Your task to perform on an android device: Clear all items from cart on bestbuy. Search for "alienware area 51" on bestbuy, select the first entry, and add it to the cart. Image 0: 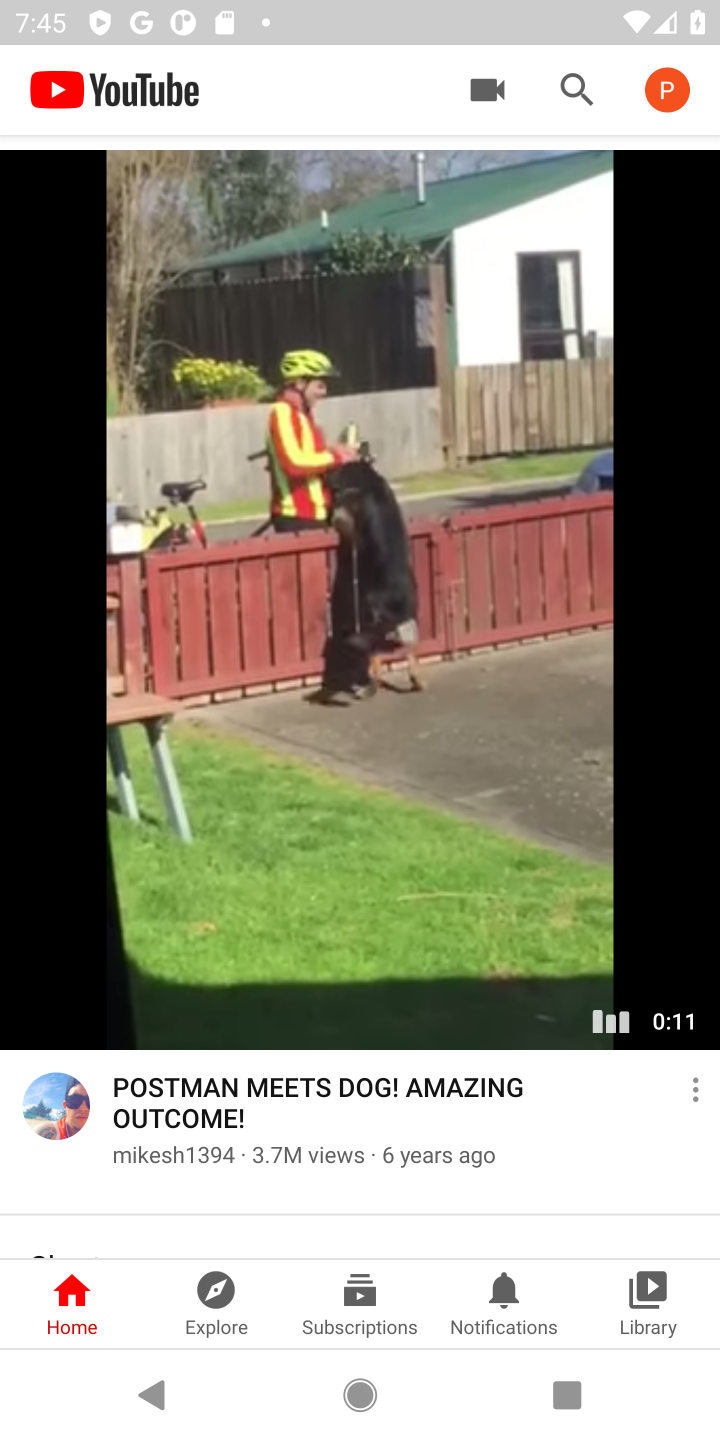
Step 0: press home button
Your task to perform on an android device: Clear all items from cart on bestbuy. Search for "alienware area 51" on bestbuy, select the first entry, and add it to the cart. Image 1: 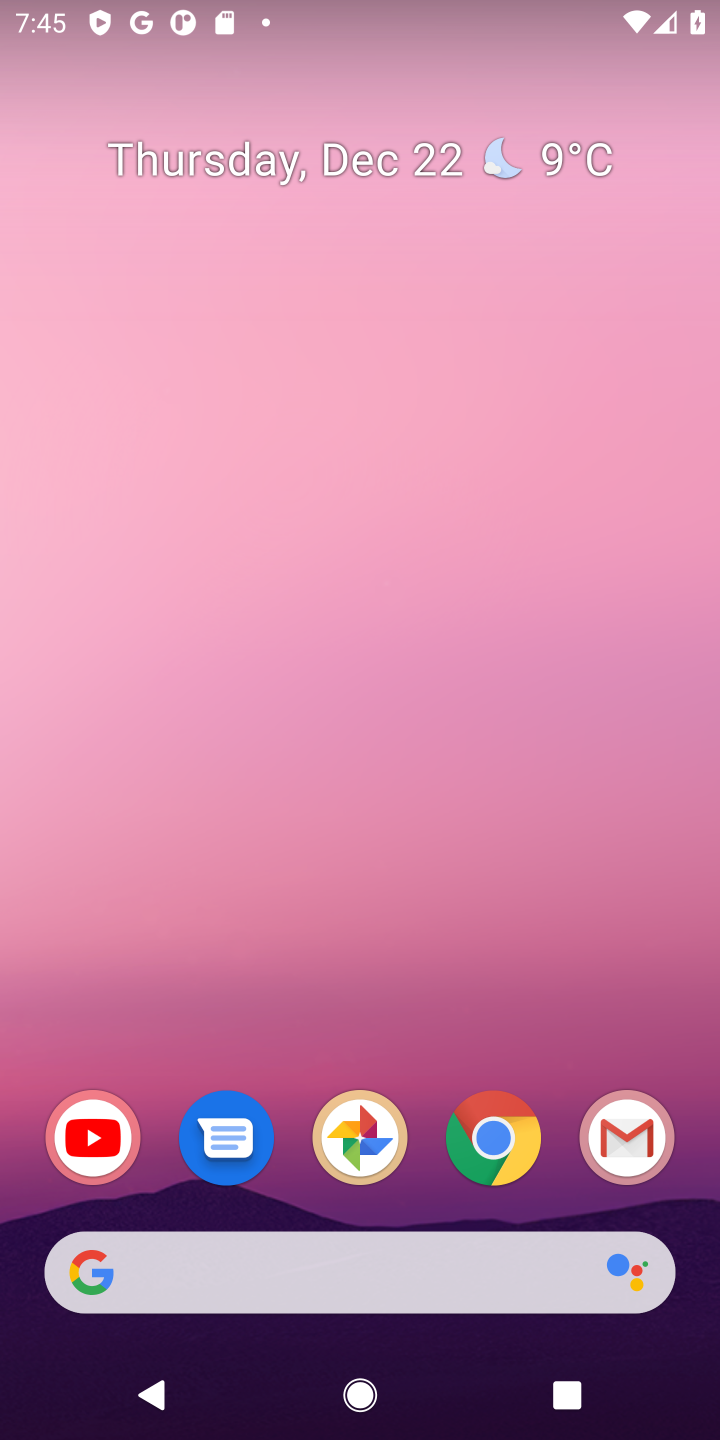
Step 1: click (483, 1119)
Your task to perform on an android device: Clear all items from cart on bestbuy. Search for "alienware area 51" on bestbuy, select the first entry, and add it to the cart. Image 2: 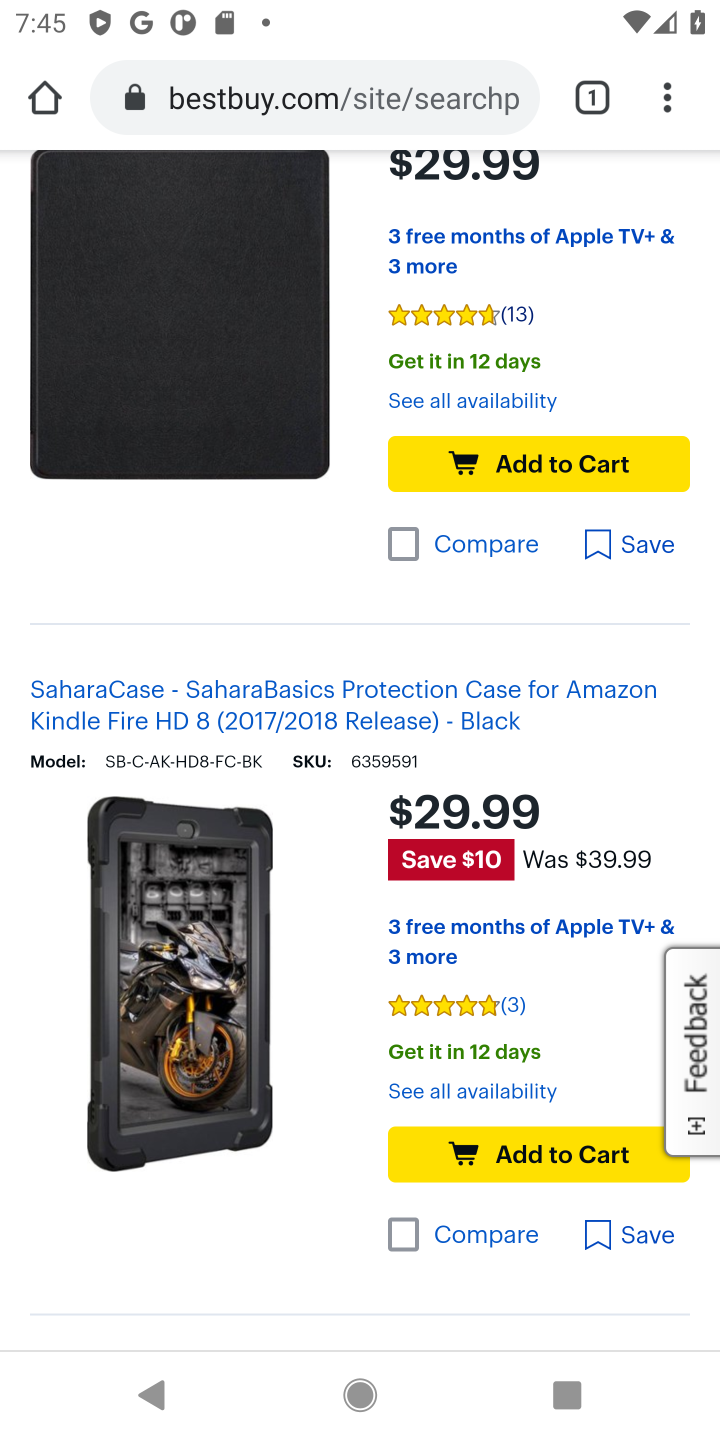
Step 2: click (266, 108)
Your task to perform on an android device: Clear all items from cart on bestbuy. Search for "alienware area 51" on bestbuy, select the first entry, and add it to the cart. Image 3: 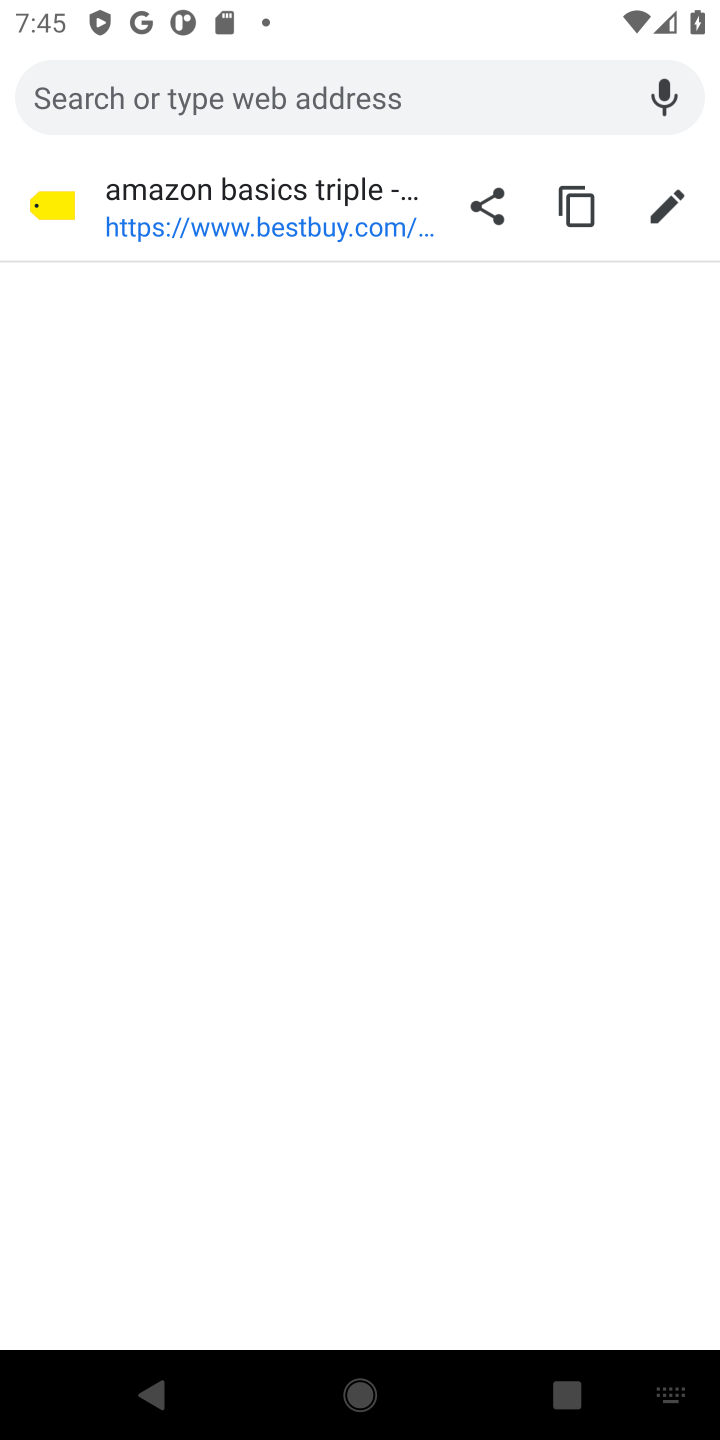
Step 3: type "bestbuy"
Your task to perform on an android device: Clear all items from cart on bestbuy. Search for "alienware area 51" on bestbuy, select the first entry, and add it to the cart. Image 4: 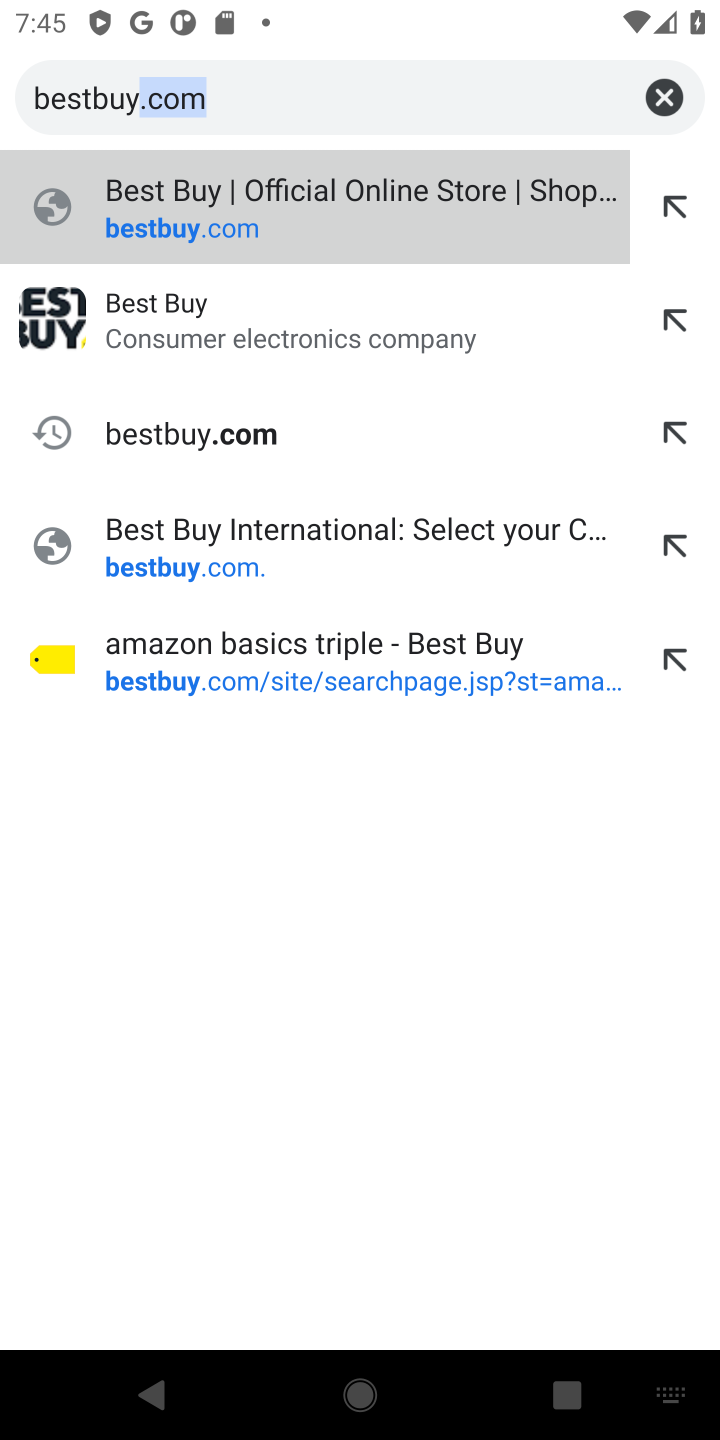
Step 4: press enter
Your task to perform on an android device: Clear all items from cart on bestbuy. Search for "alienware area 51" on bestbuy, select the first entry, and add it to the cart. Image 5: 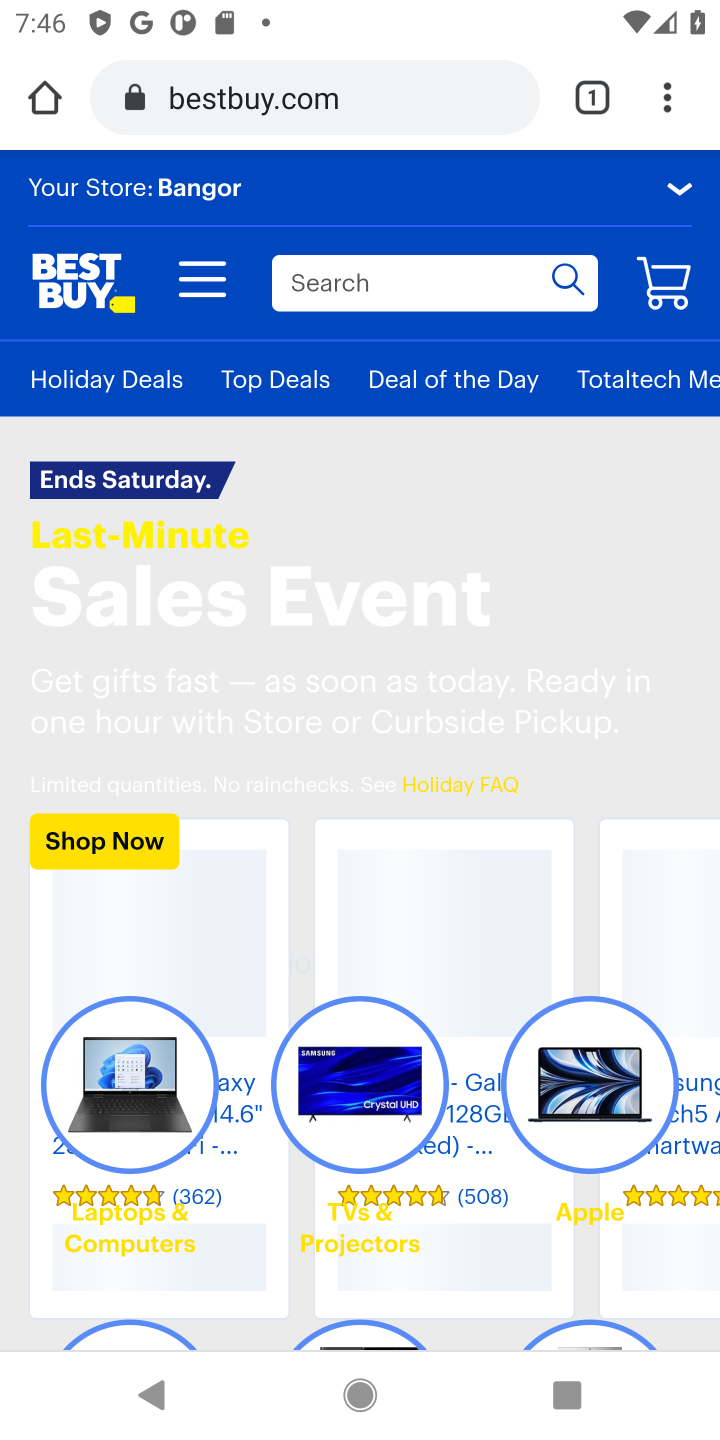
Step 5: click (345, 301)
Your task to perform on an android device: Clear all items from cart on bestbuy. Search for "alienware area 51" on bestbuy, select the first entry, and add it to the cart. Image 6: 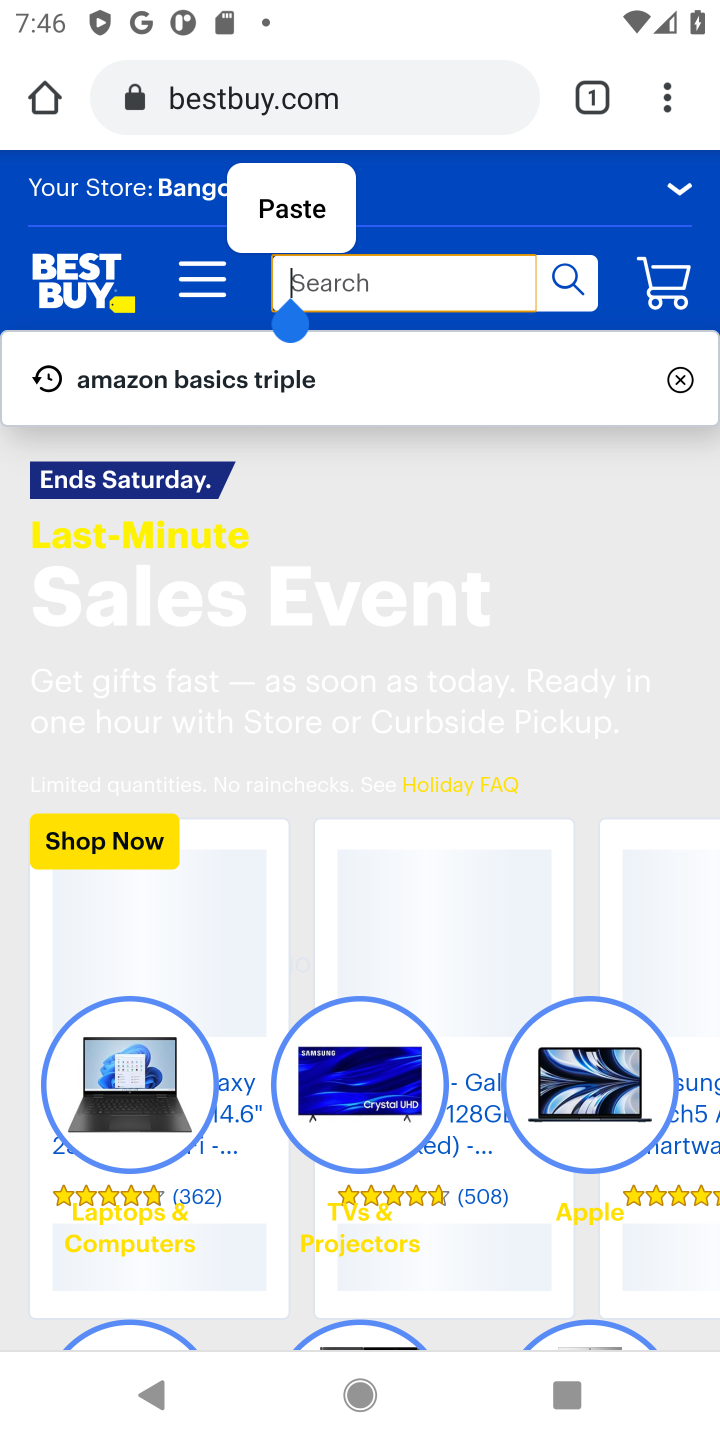
Step 6: click (657, 290)
Your task to perform on an android device: Clear all items from cart on bestbuy. Search for "alienware area 51" on bestbuy, select the first entry, and add it to the cart. Image 7: 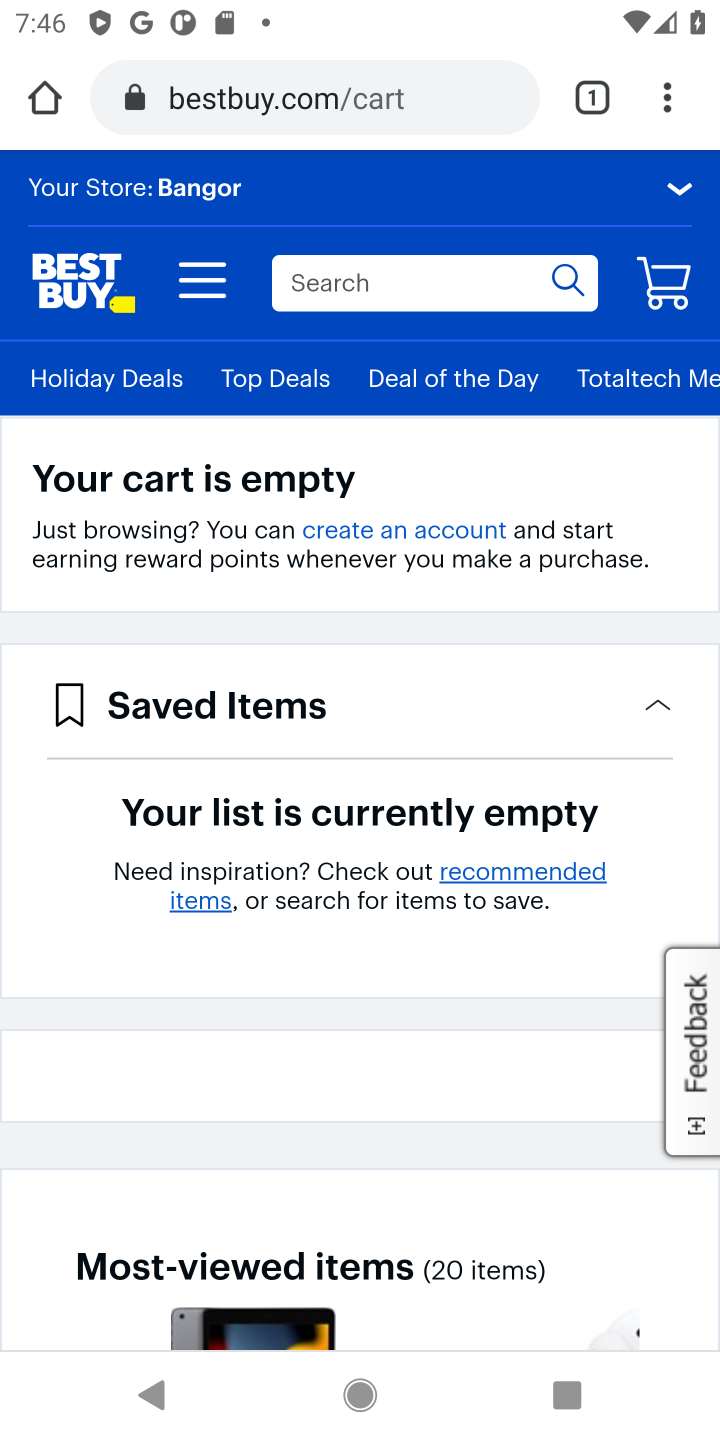
Step 7: click (385, 295)
Your task to perform on an android device: Clear all items from cart on bestbuy. Search for "alienware area 51" on bestbuy, select the first entry, and add it to the cart. Image 8: 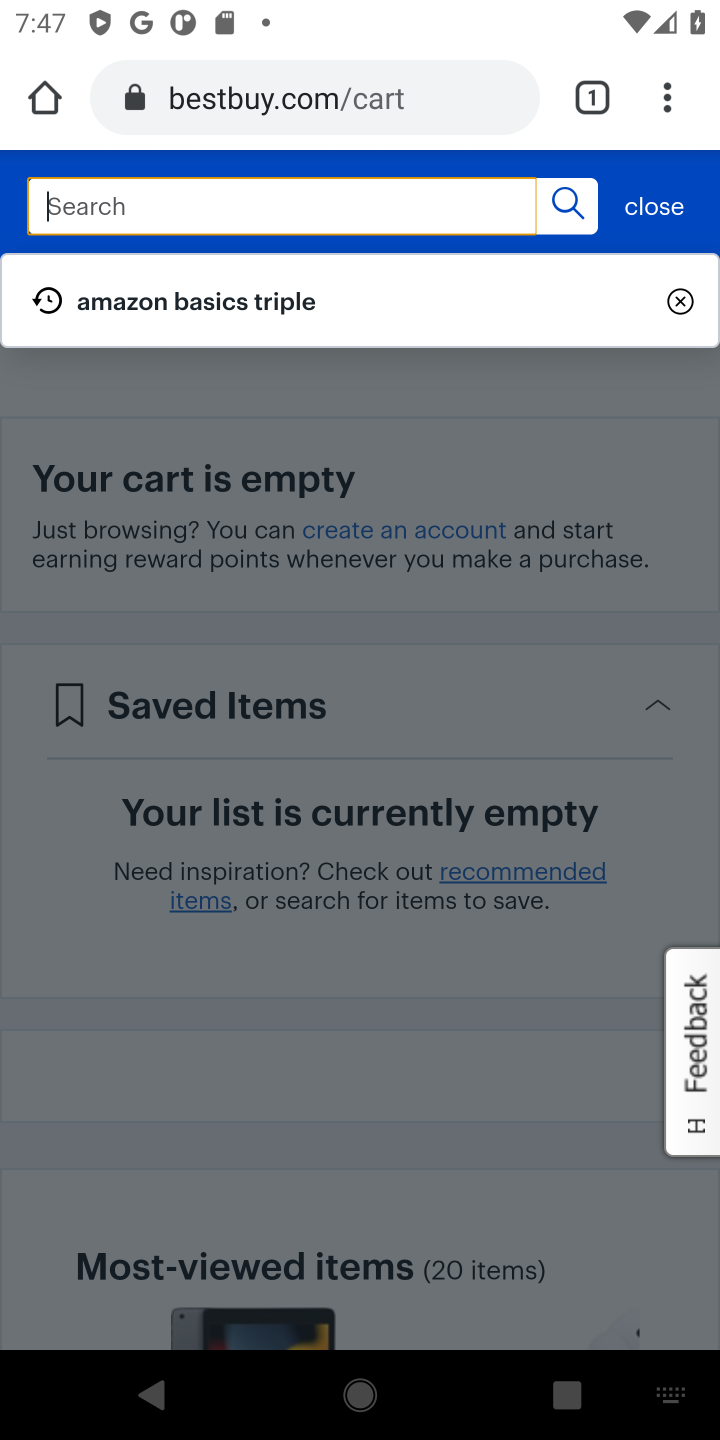
Step 8: type "alienware area 51"
Your task to perform on an android device: Clear all items from cart on bestbuy. Search for "alienware area 51" on bestbuy, select the first entry, and add it to the cart. Image 9: 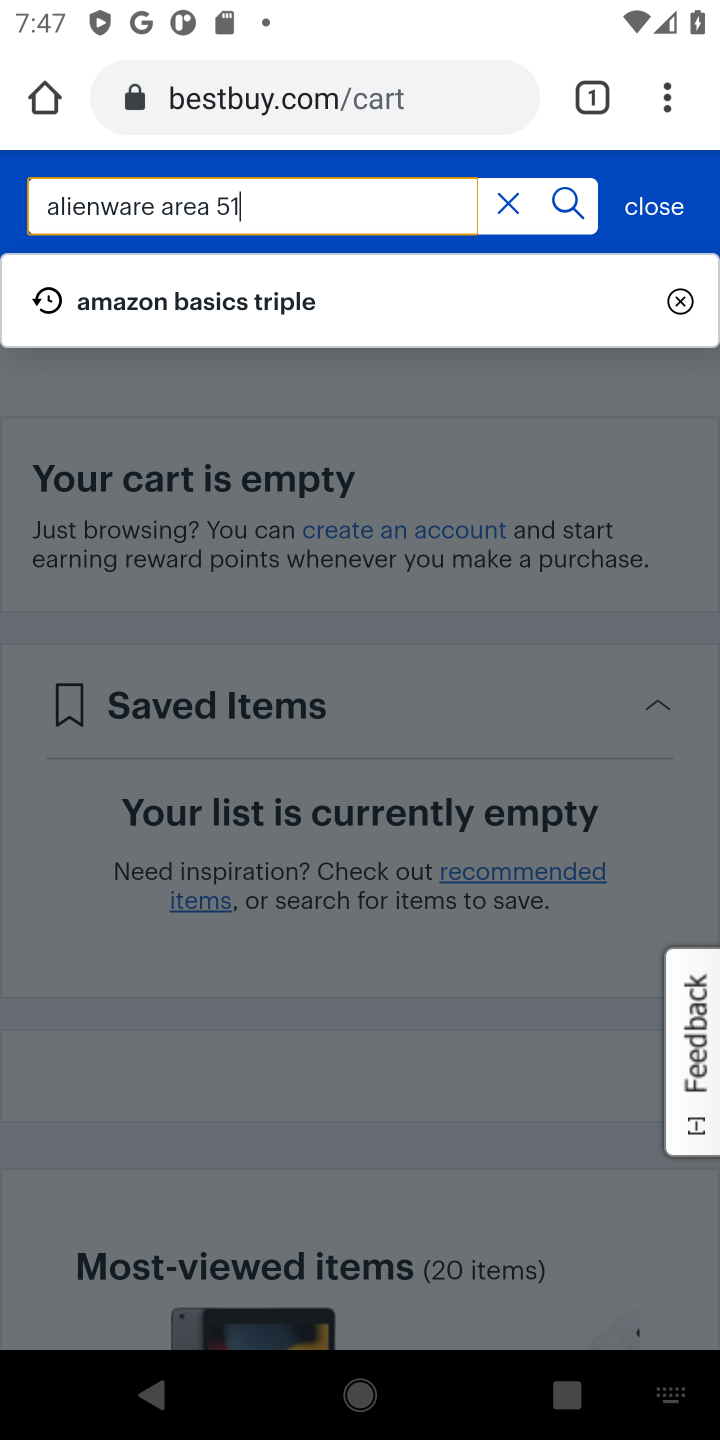
Step 9: press enter
Your task to perform on an android device: Clear all items from cart on bestbuy. Search for "alienware area 51" on bestbuy, select the first entry, and add it to the cart. Image 10: 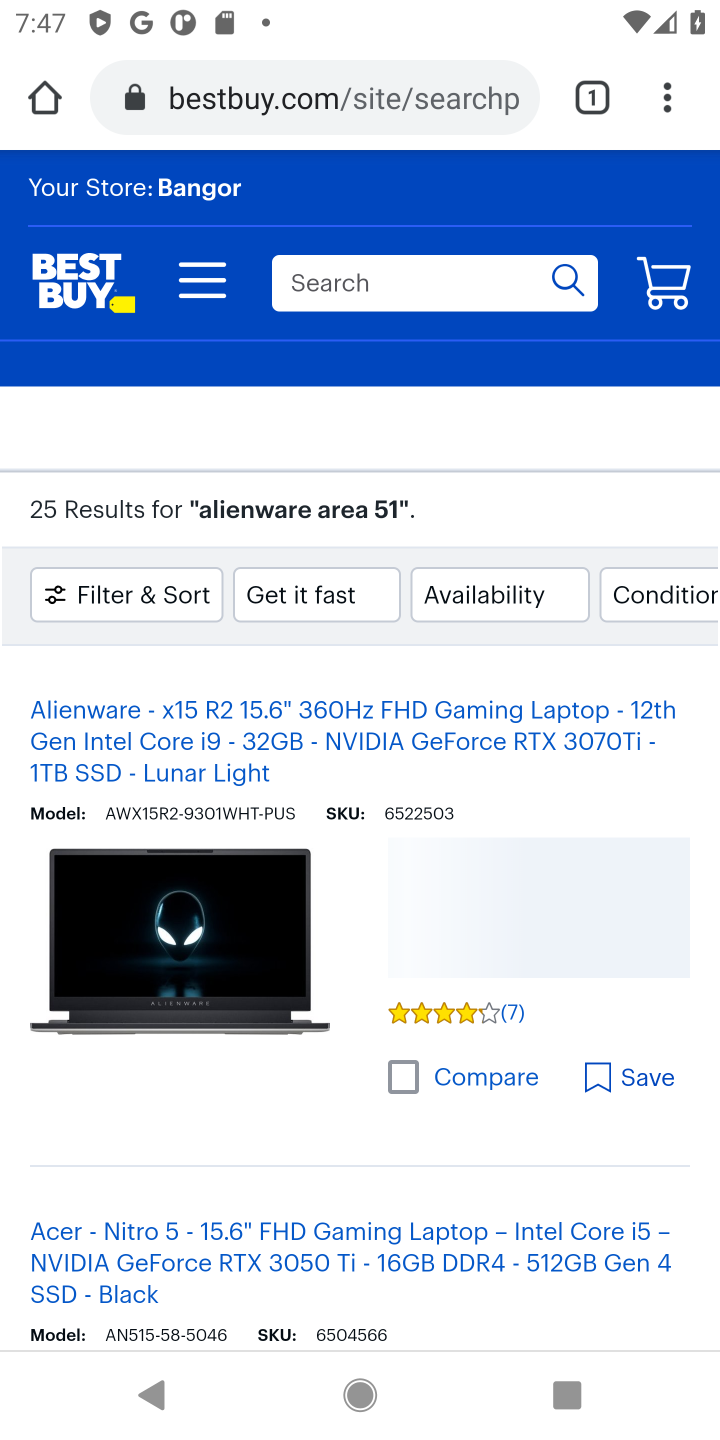
Step 10: click (206, 952)
Your task to perform on an android device: Clear all items from cart on bestbuy. Search for "alienware area 51" on bestbuy, select the first entry, and add it to the cart. Image 11: 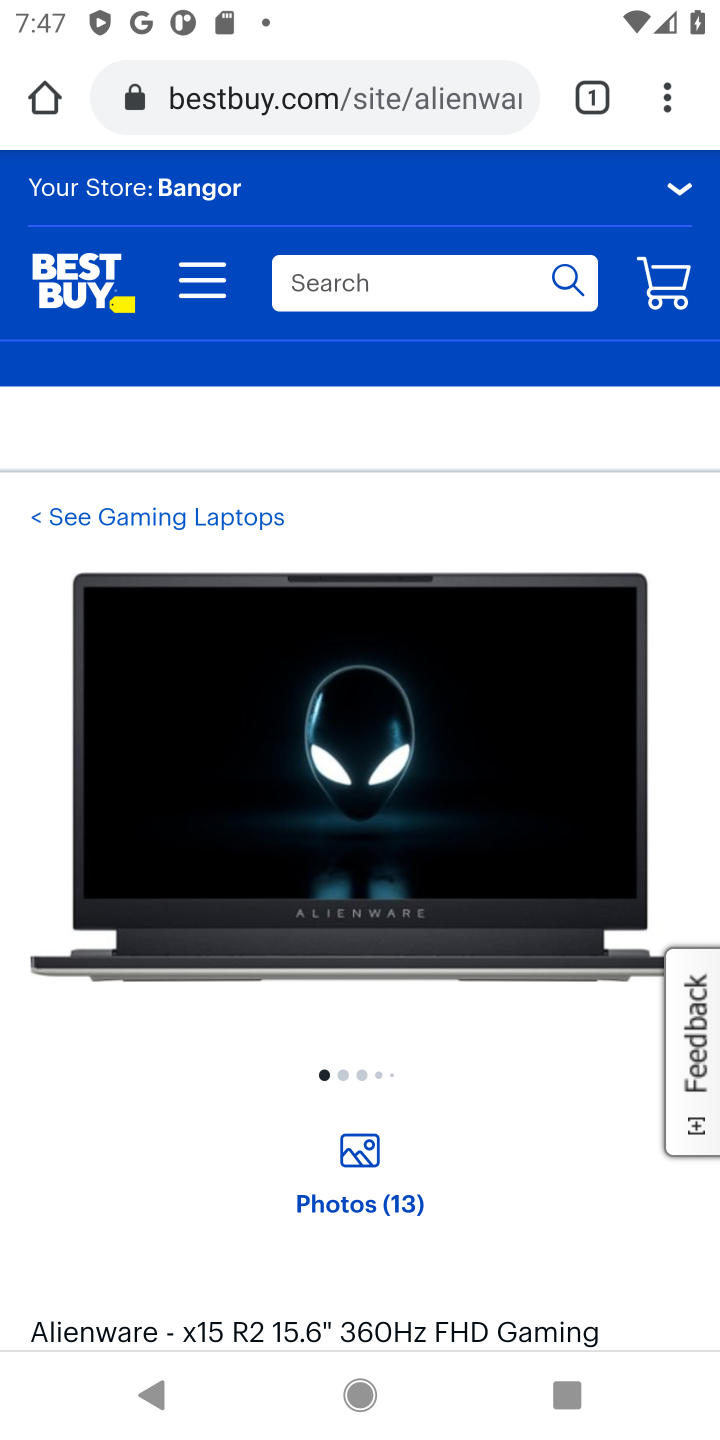
Step 11: drag from (209, 1236) to (277, 789)
Your task to perform on an android device: Clear all items from cart on bestbuy. Search for "alienware area 51" on bestbuy, select the first entry, and add it to the cart. Image 12: 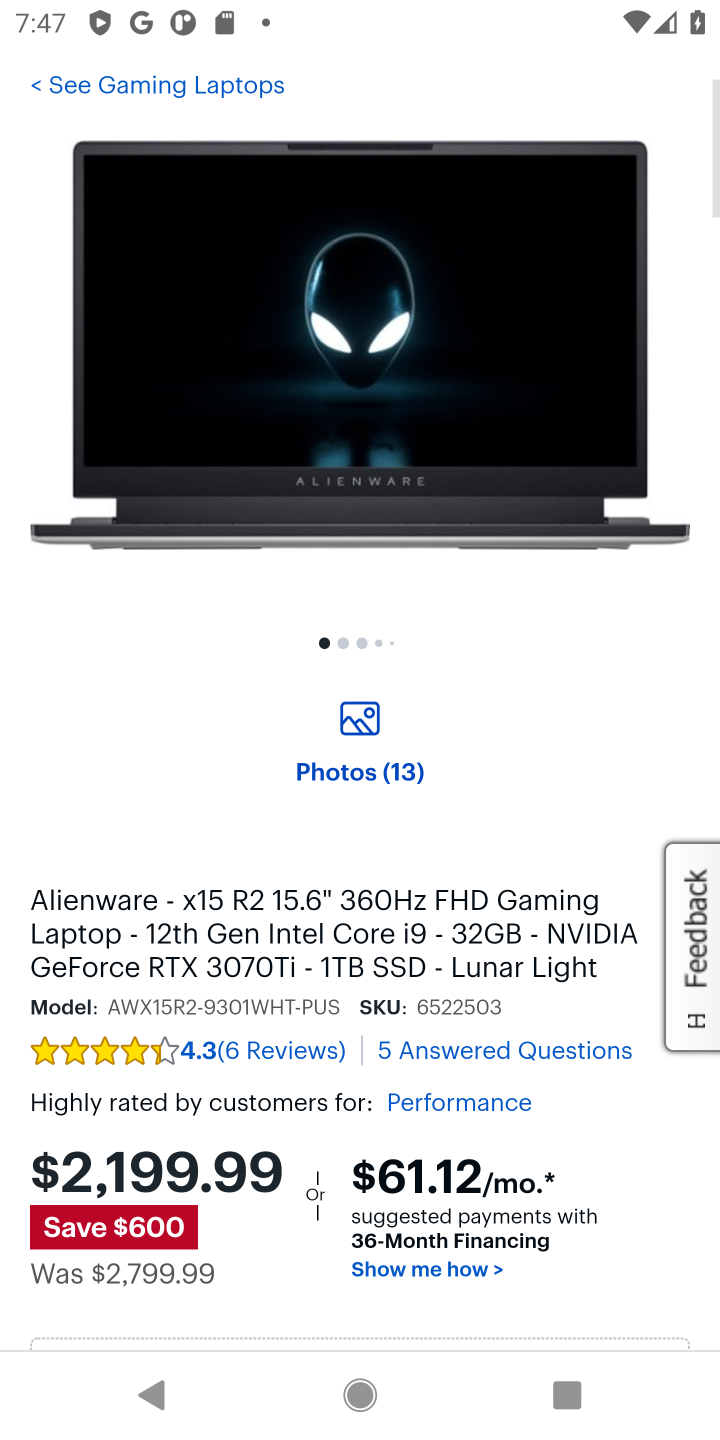
Step 12: drag from (266, 1159) to (297, 654)
Your task to perform on an android device: Clear all items from cart on bestbuy. Search for "alienware area 51" on bestbuy, select the first entry, and add it to the cart. Image 13: 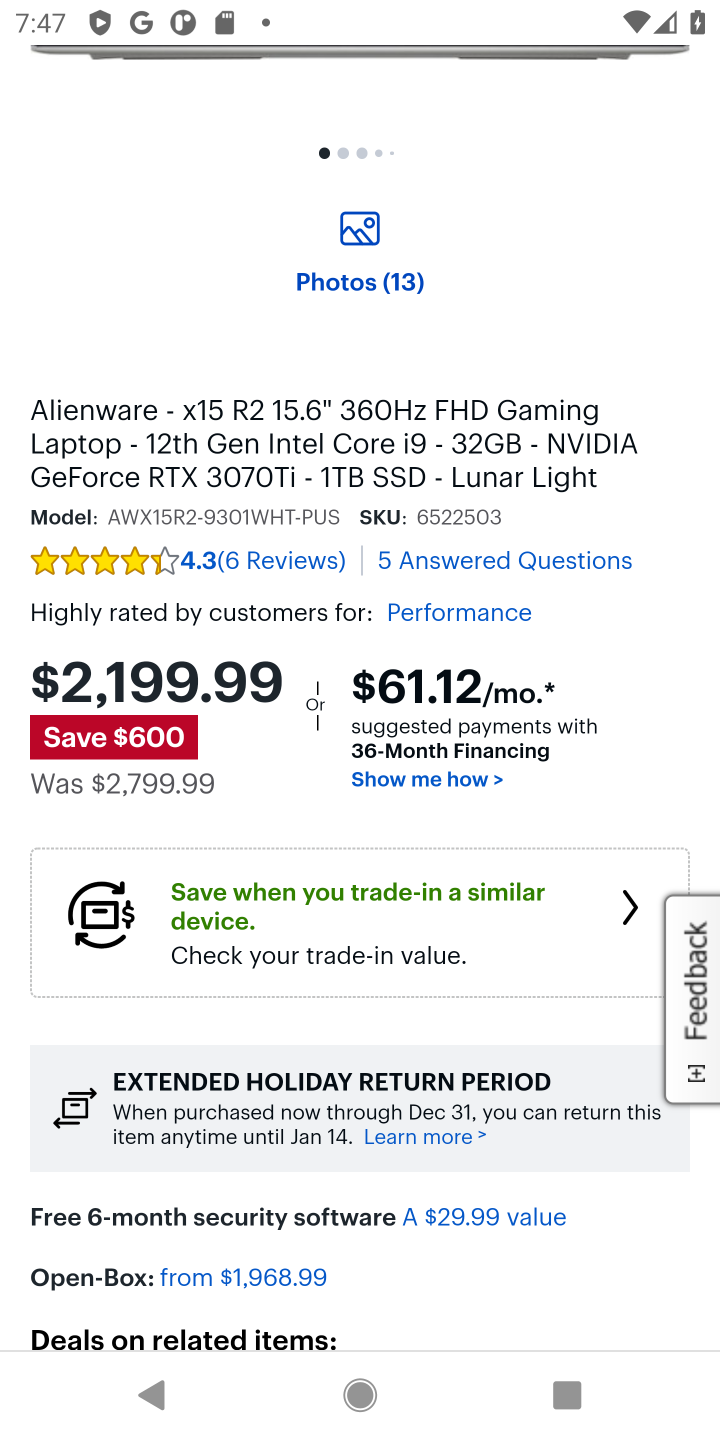
Step 13: drag from (214, 1190) to (214, 749)
Your task to perform on an android device: Clear all items from cart on bestbuy. Search for "alienware area 51" on bestbuy, select the first entry, and add it to the cart. Image 14: 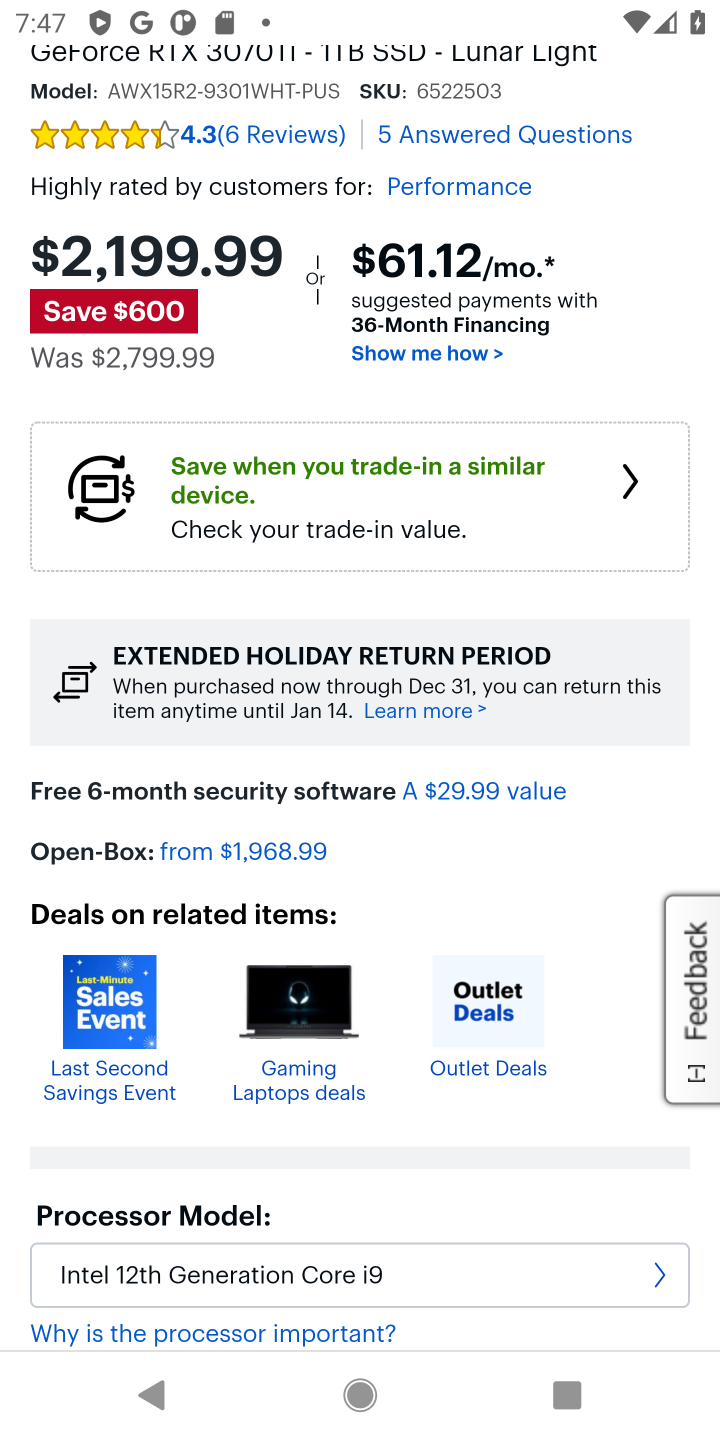
Step 14: drag from (273, 1156) to (450, 517)
Your task to perform on an android device: Clear all items from cart on bestbuy. Search for "alienware area 51" on bestbuy, select the first entry, and add it to the cart. Image 15: 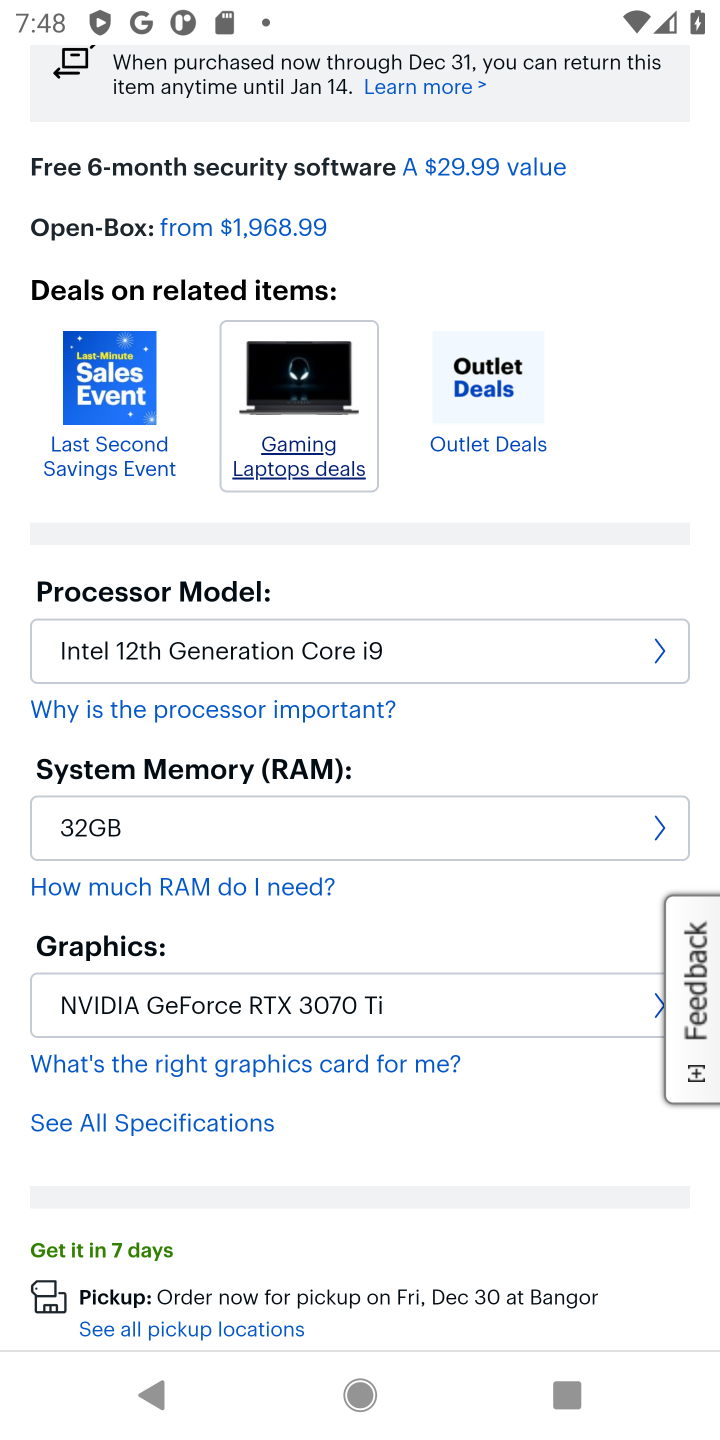
Step 15: drag from (434, 1275) to (542, 583)
Your task to perform on an android device: Clear all items from cart on bestbuy. Search for "alienware area 51" on bestbuy, select the first entry, and add it to the cart. Image 16: 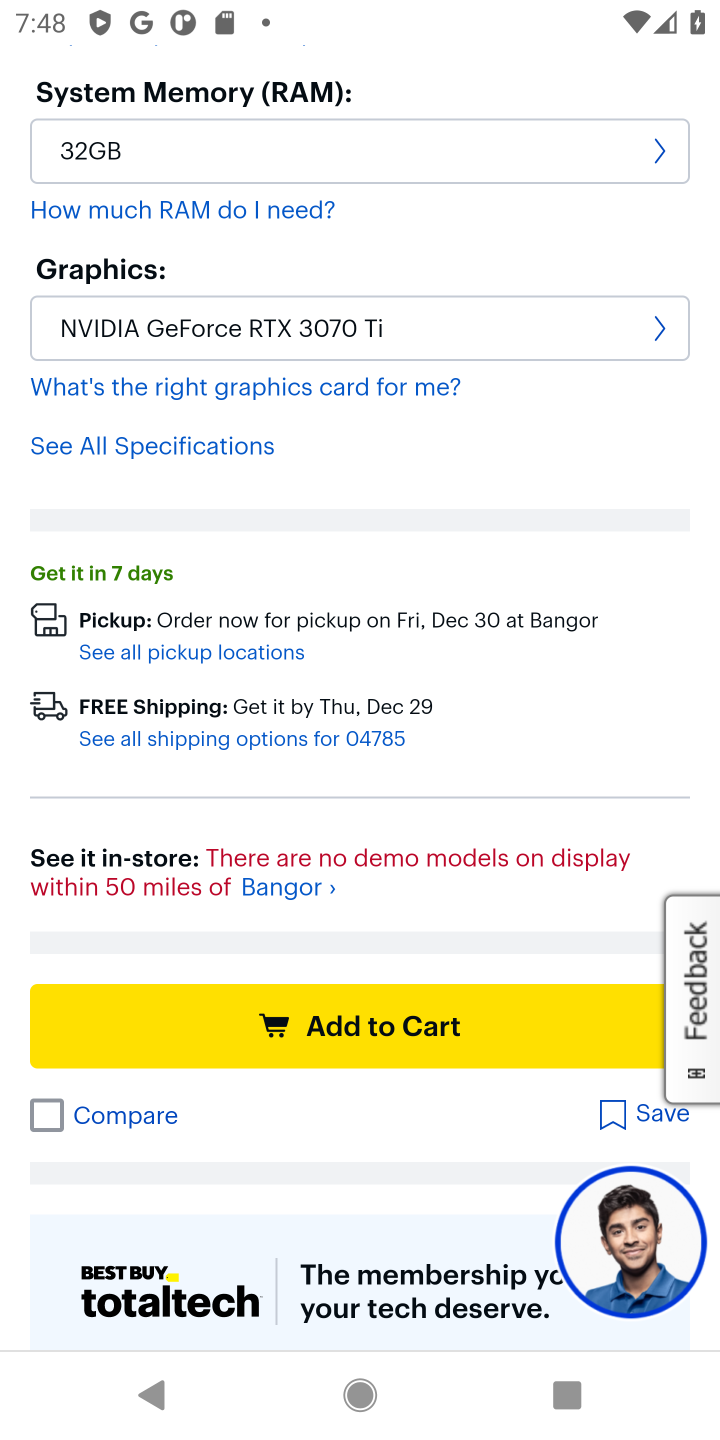
Step 16: click (401, 1028)
Your task to perform on an android device: Clear all items from cart on bestbuy. Search for "alienware area 51" on bestbuy, select the first entry, and add it to the cart. Image 17: 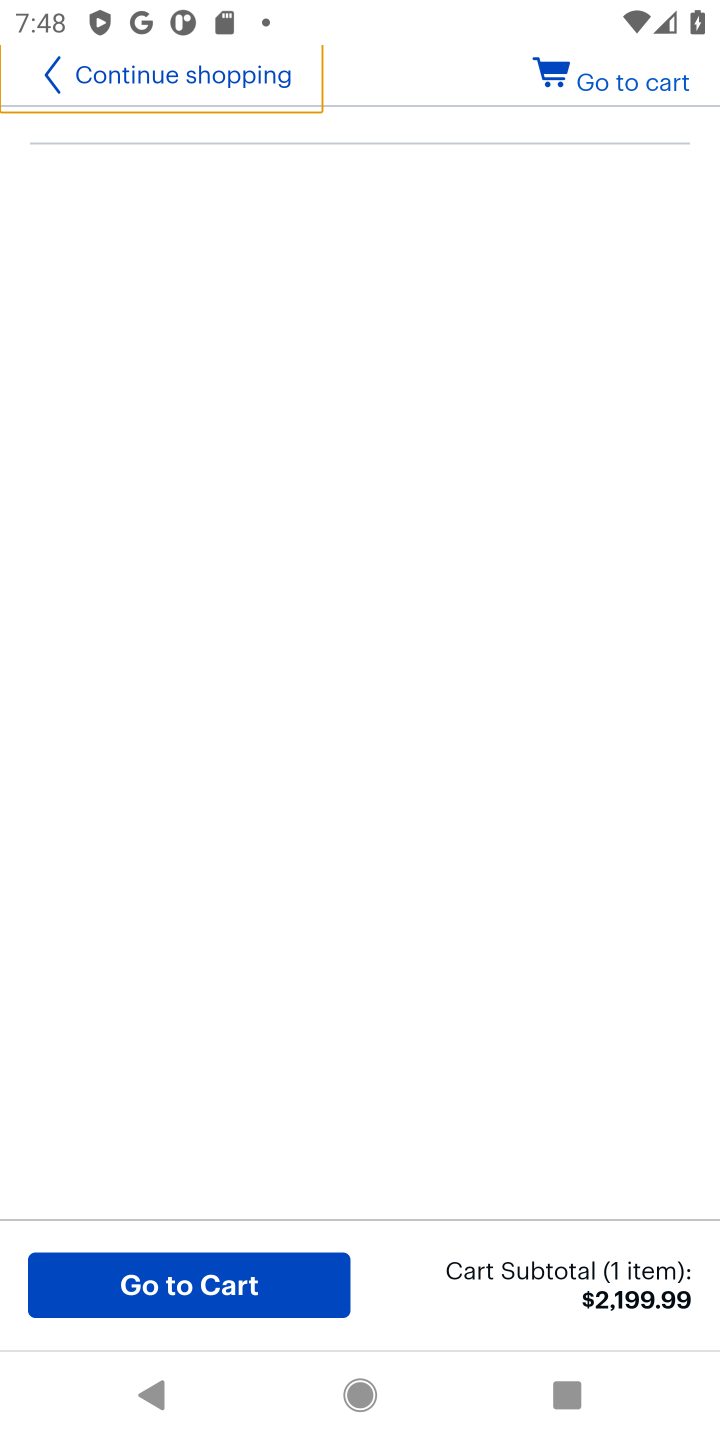
Step 17: click (243, 1306)
Your task to perform on an android device: Clear all items from cart on bestbuy. Search for "alienware area 51" on bestbuy, select the first entry, and add it to the cart. Image 18: 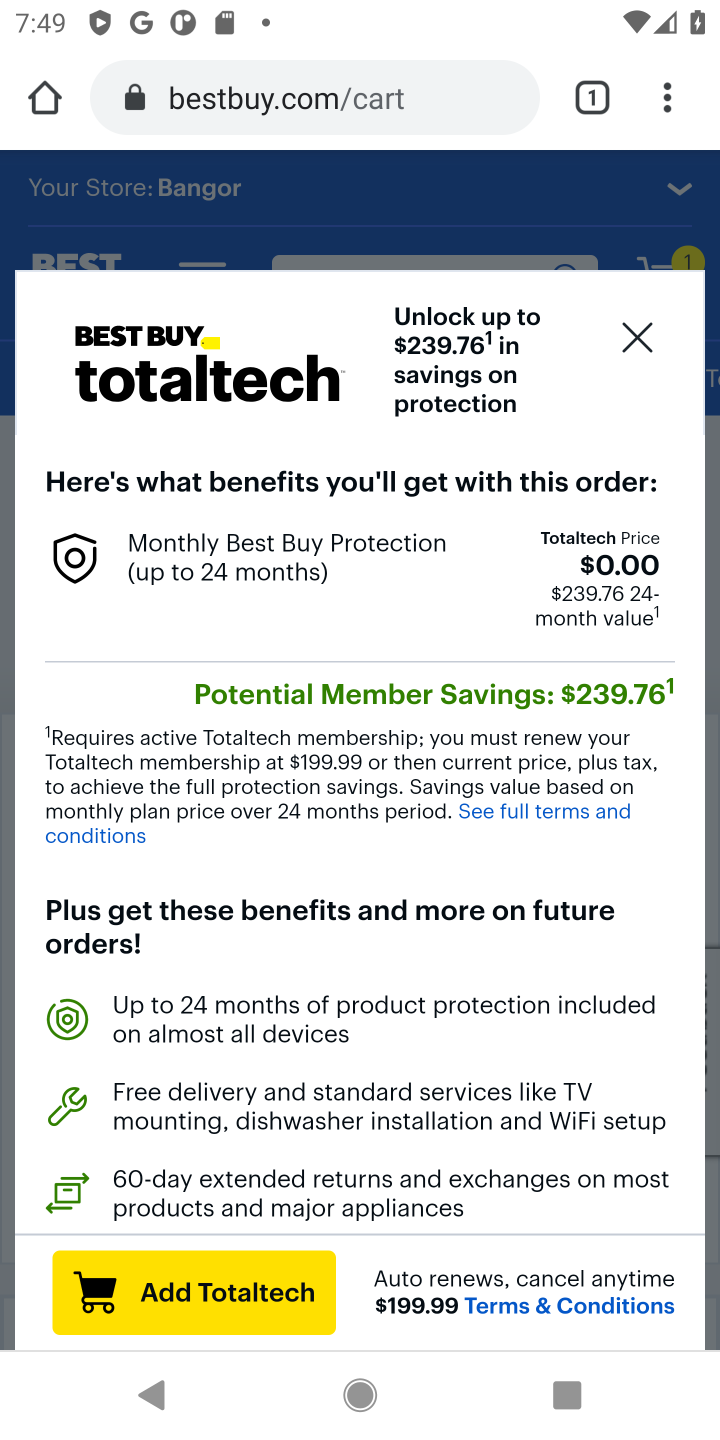
Step 18: click (236, 1311)
Your task to perform on an android device: Clear all items from cart on bestbuy. Search for "alienware area 51" on bestbuy, select the first entry, and add it to the cart. Image 19: 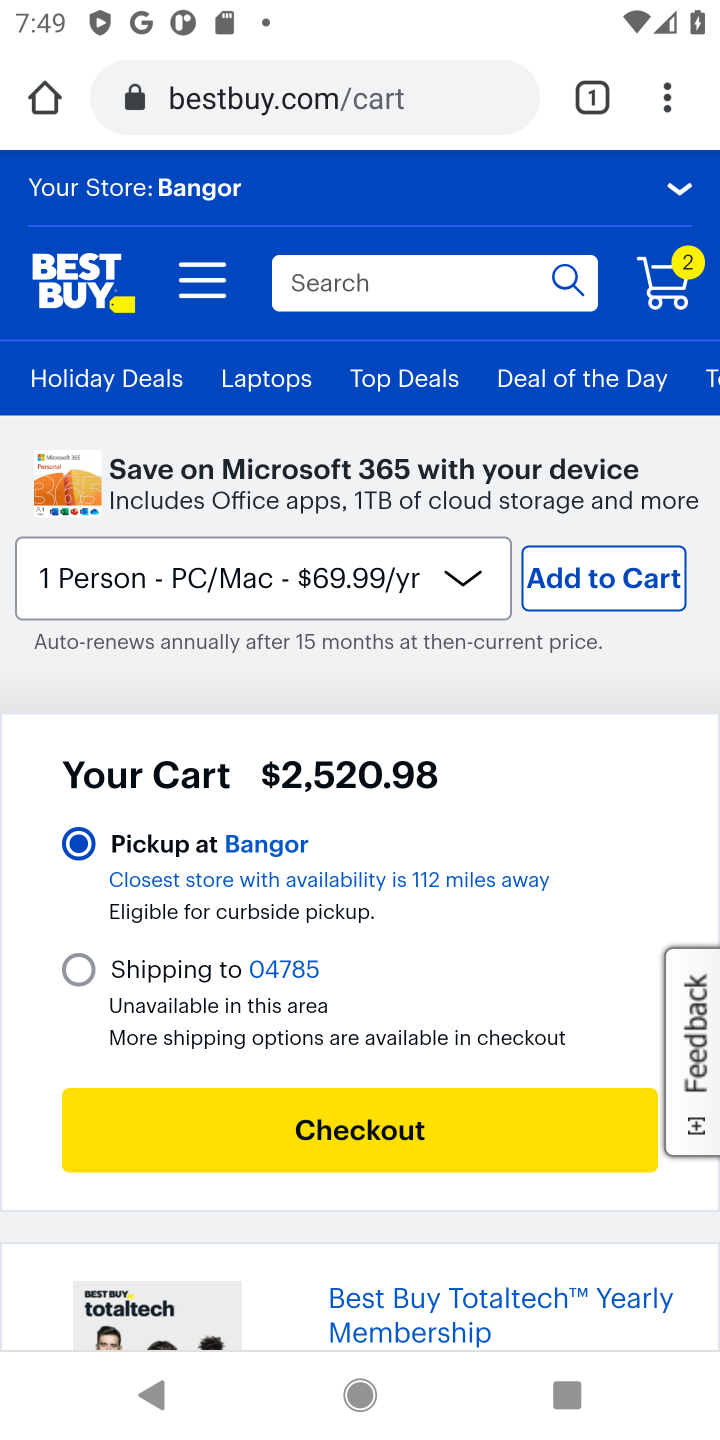
Step 19: task complete